Your task to perform on an android device: Add "razer blade" to the cart on target.com, then select checkout. Image 0: 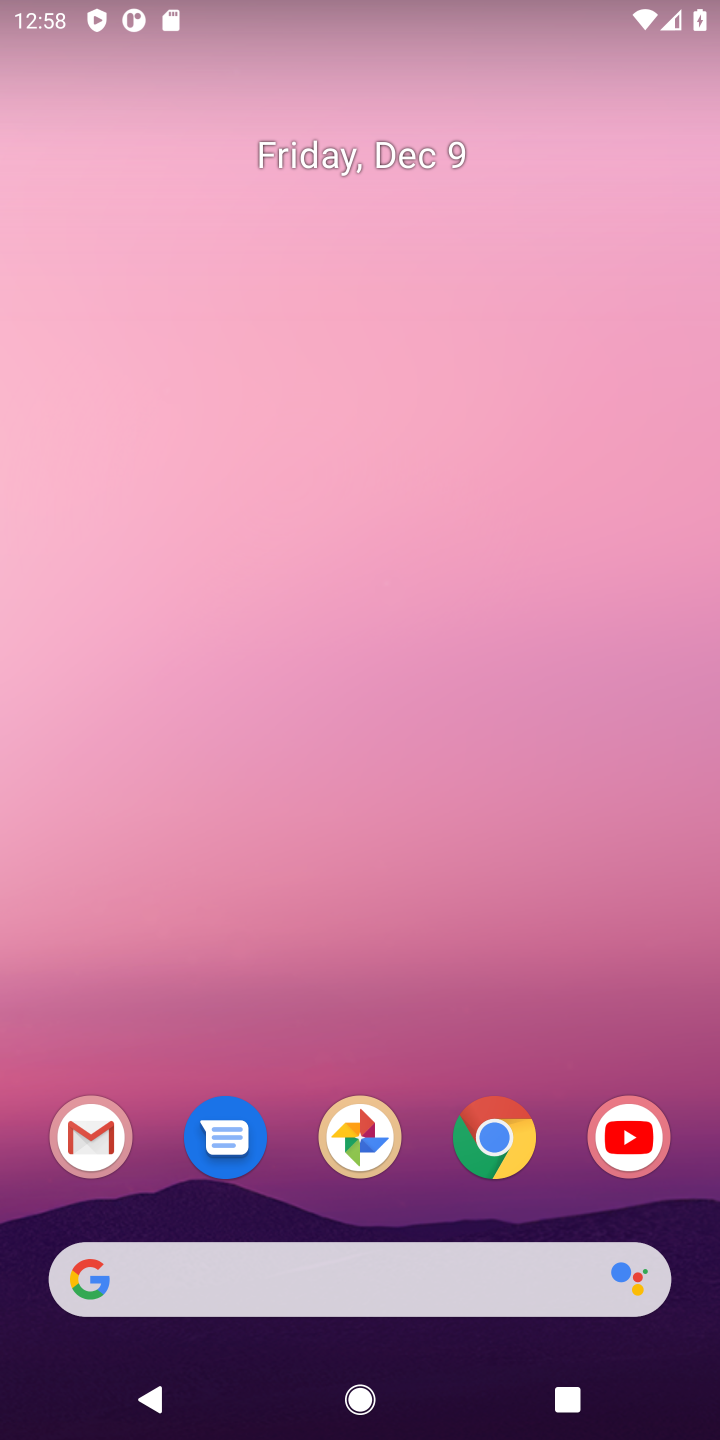
Step 0: click (502, 1143)
Your task to perform on an android device: Add "razer blade" to the cart on target.com, then select checkout. Image 1: 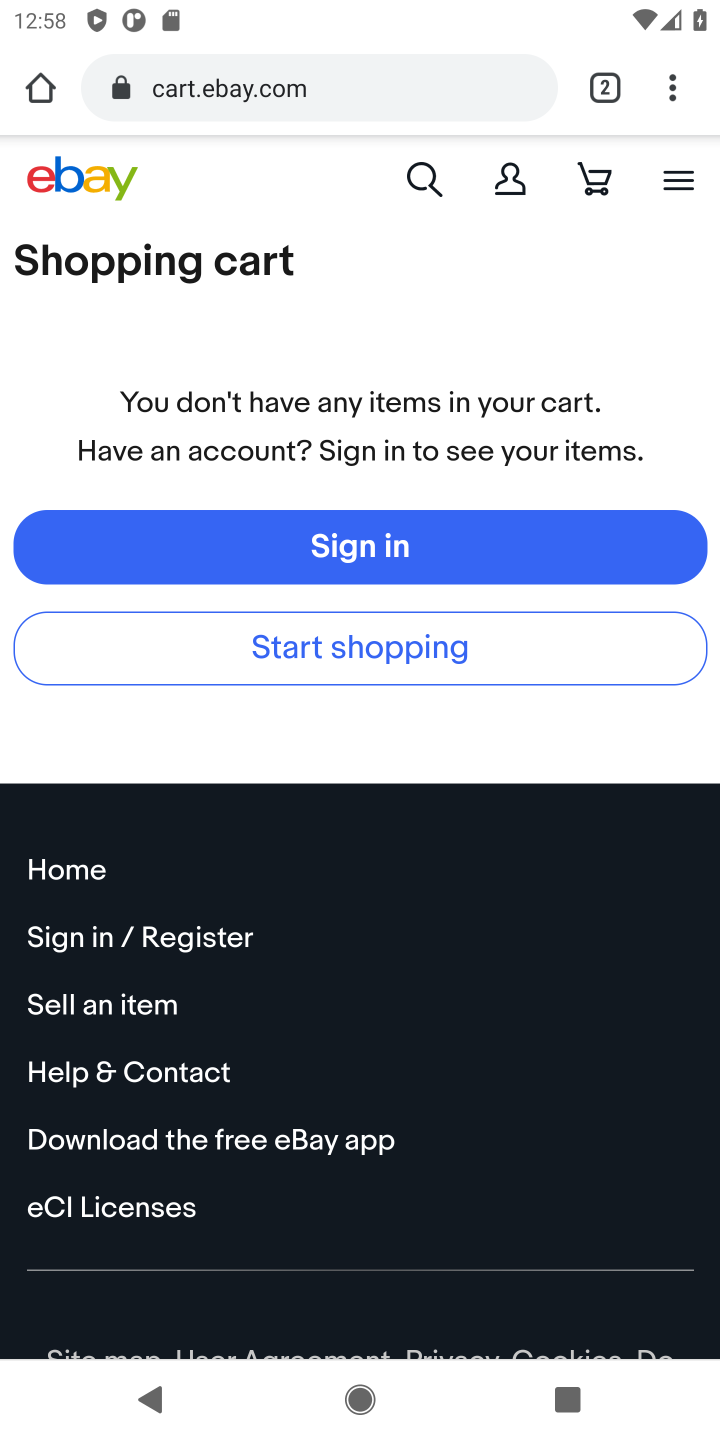
Step 1: click (383, 83)
Your task to perform on an android device: Add "razer blade" to the cart on target.com, then select checkout. Image 2: 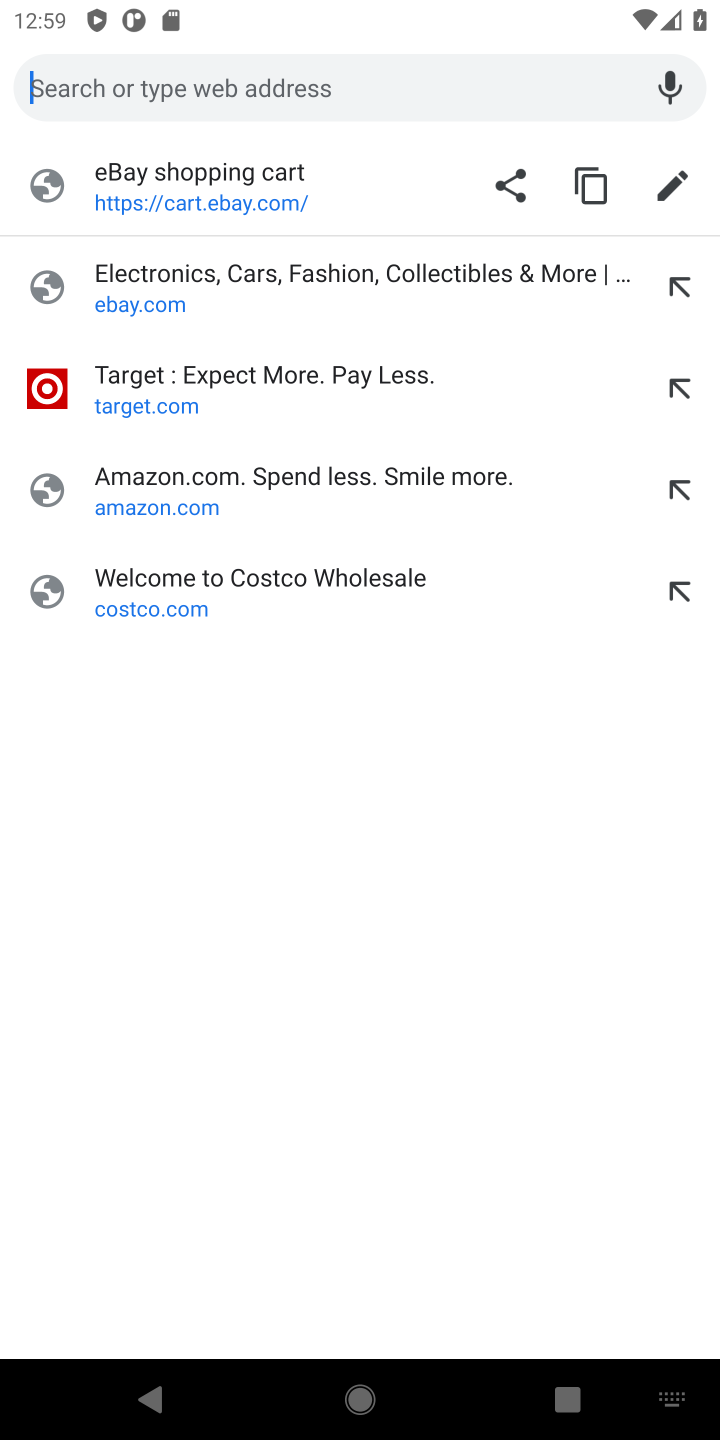
Step 2: click (248, 390)
Your task to perform on an android device: Add "razer blade" to the cart on target.com, then select checkout. Image 3: 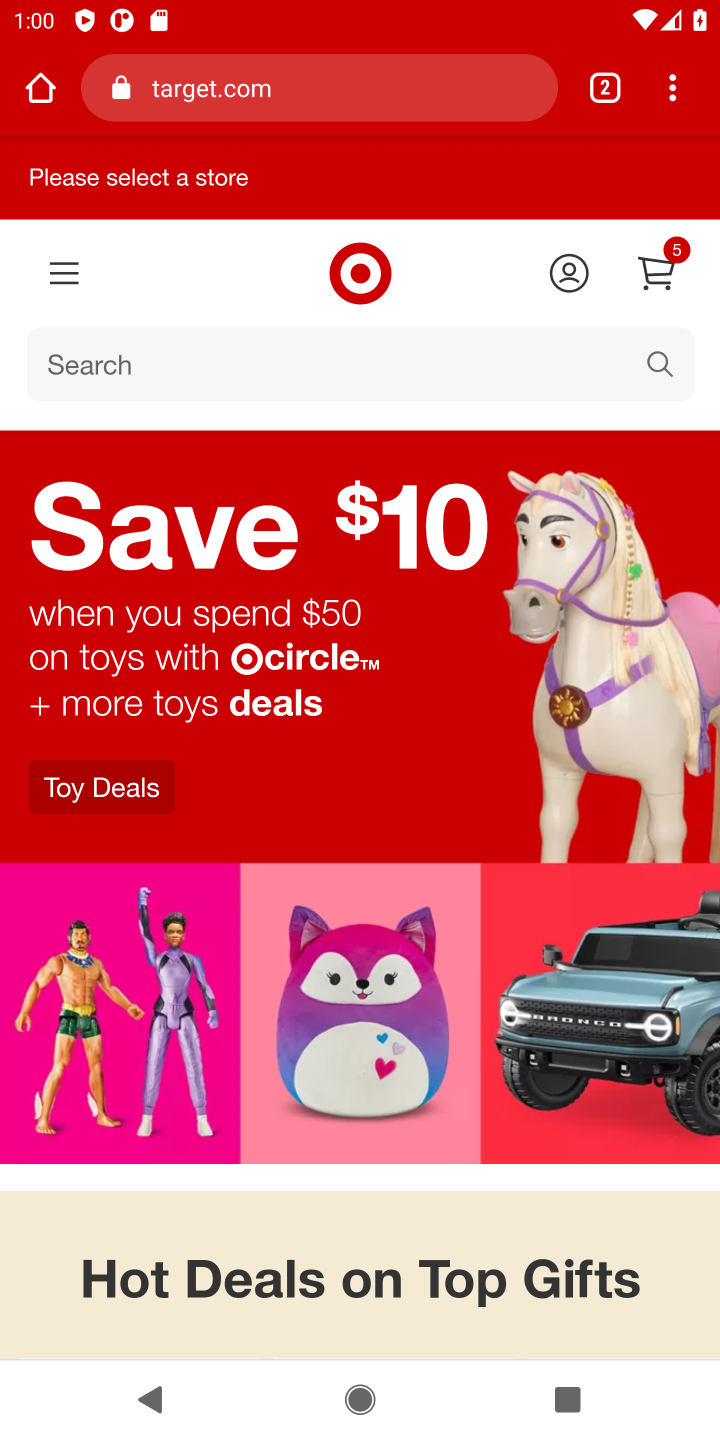
Step 3: click (413, 364)
Your task to perform on an android device: Add "razer blade" to the cart on target.com, then select checkout. Image 4: 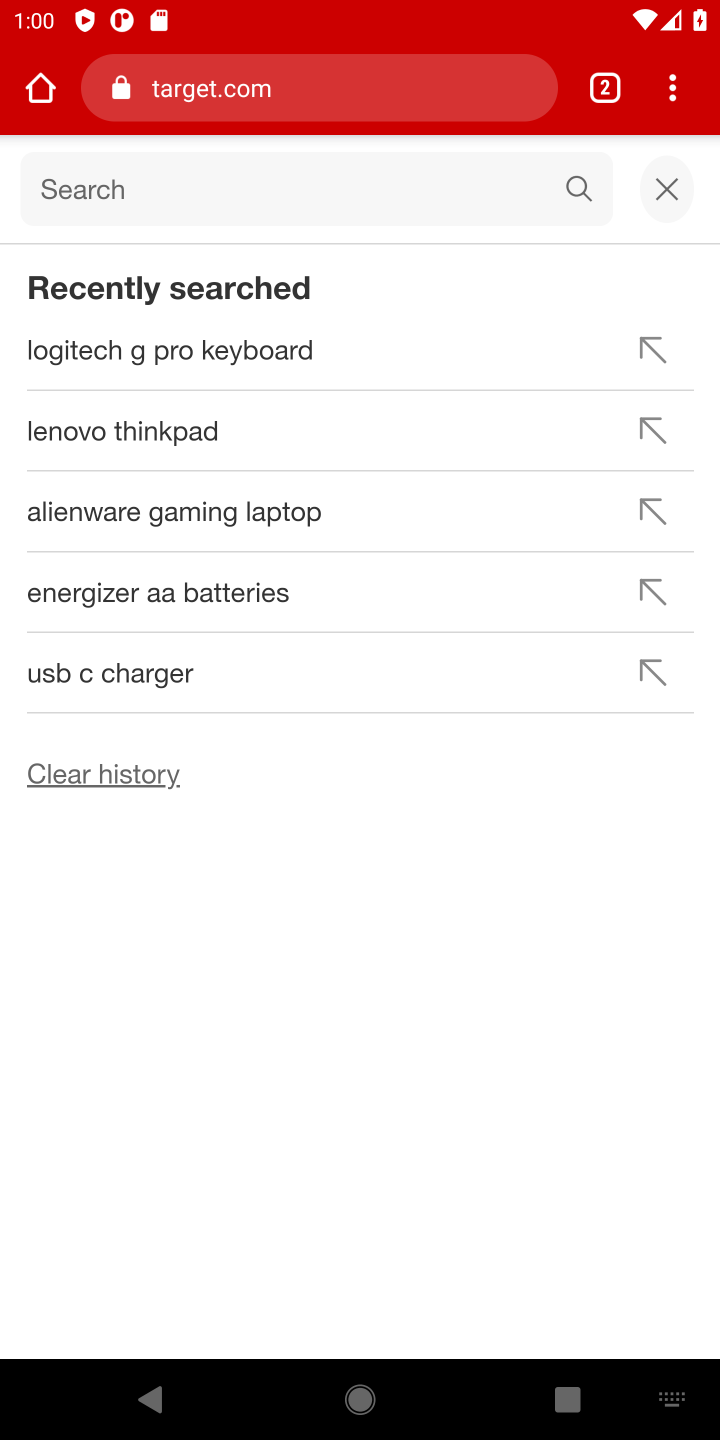
Step 4: type "RAZER BLADE"
Your task to perform on an android device: Add "razer blade" to the cart on target.com, then select checkout. Image 5: 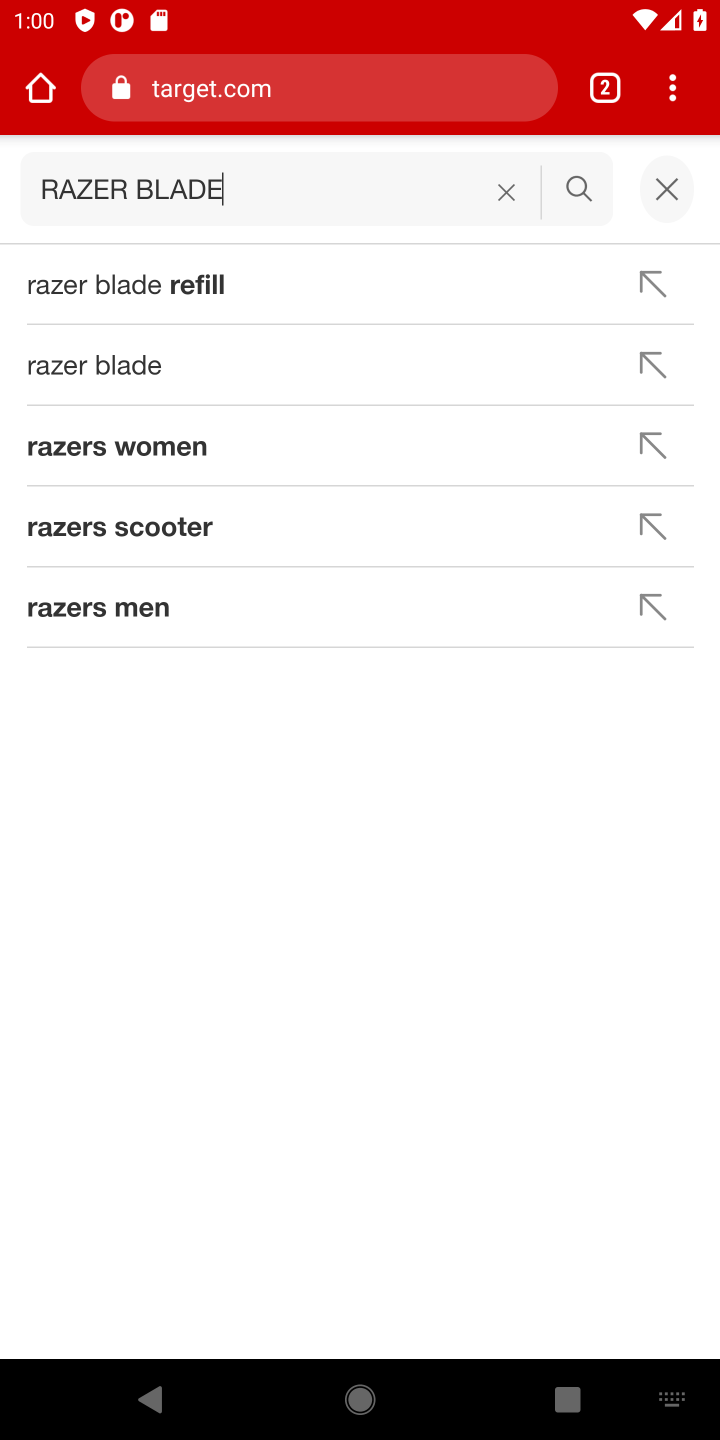
Step 5: click (244, 291)
Your task to perform on an android device: Add "razer blade" to the cart on target.com, then select checkout. Image 6: 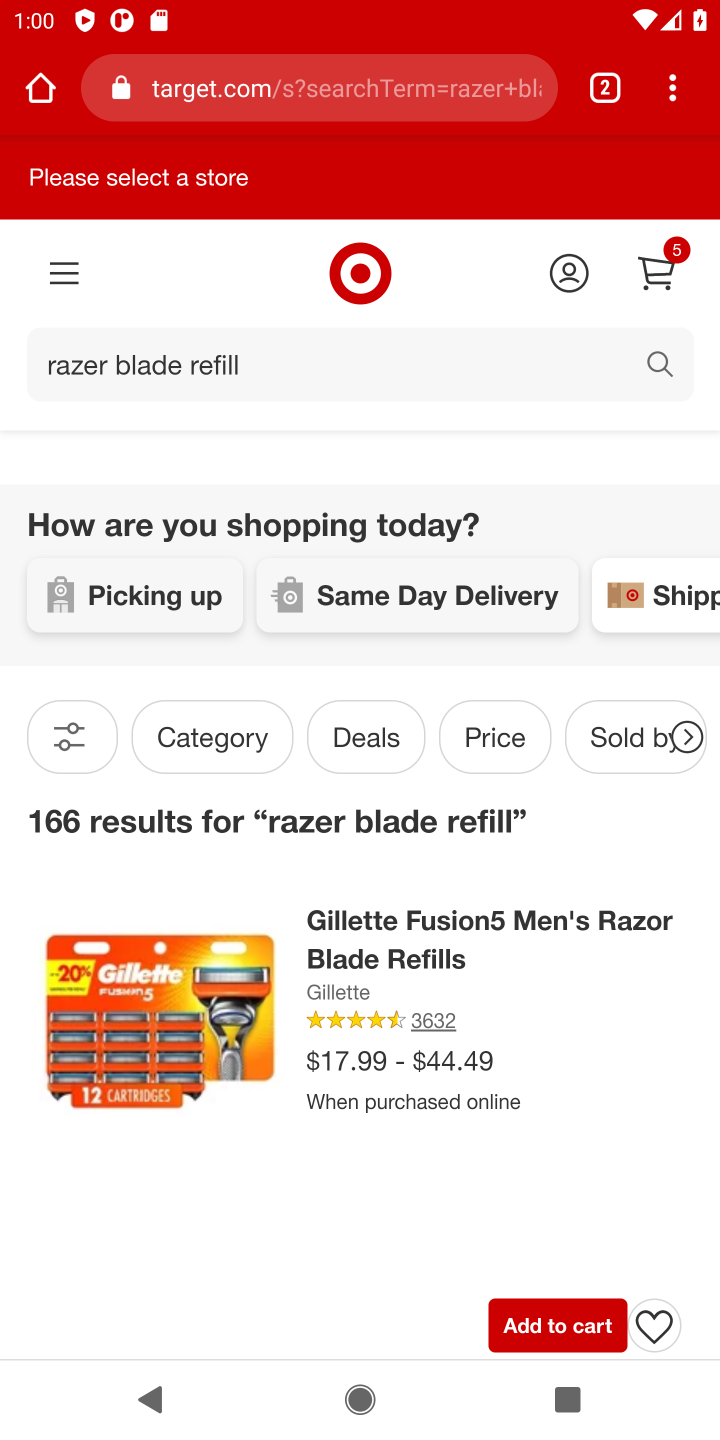
Step 6: click (559, 1323)
Your task to perform on an android device: Add "razer blade" to the cart on target.com, then select checkout. Image 7: 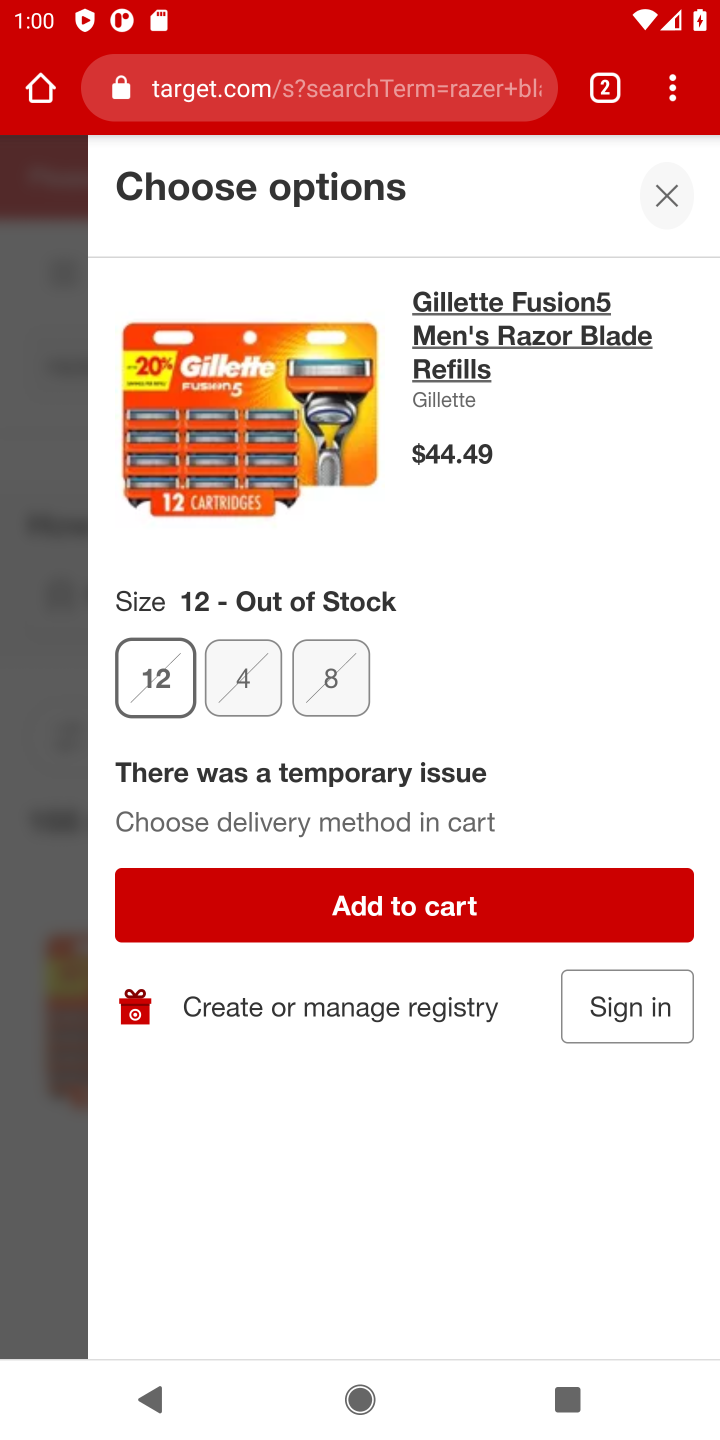
Step 7: click (469, 919)
Your task to perform on an android device: Add "razer blade" to the cart on target.com, then select checkout. Image 8: 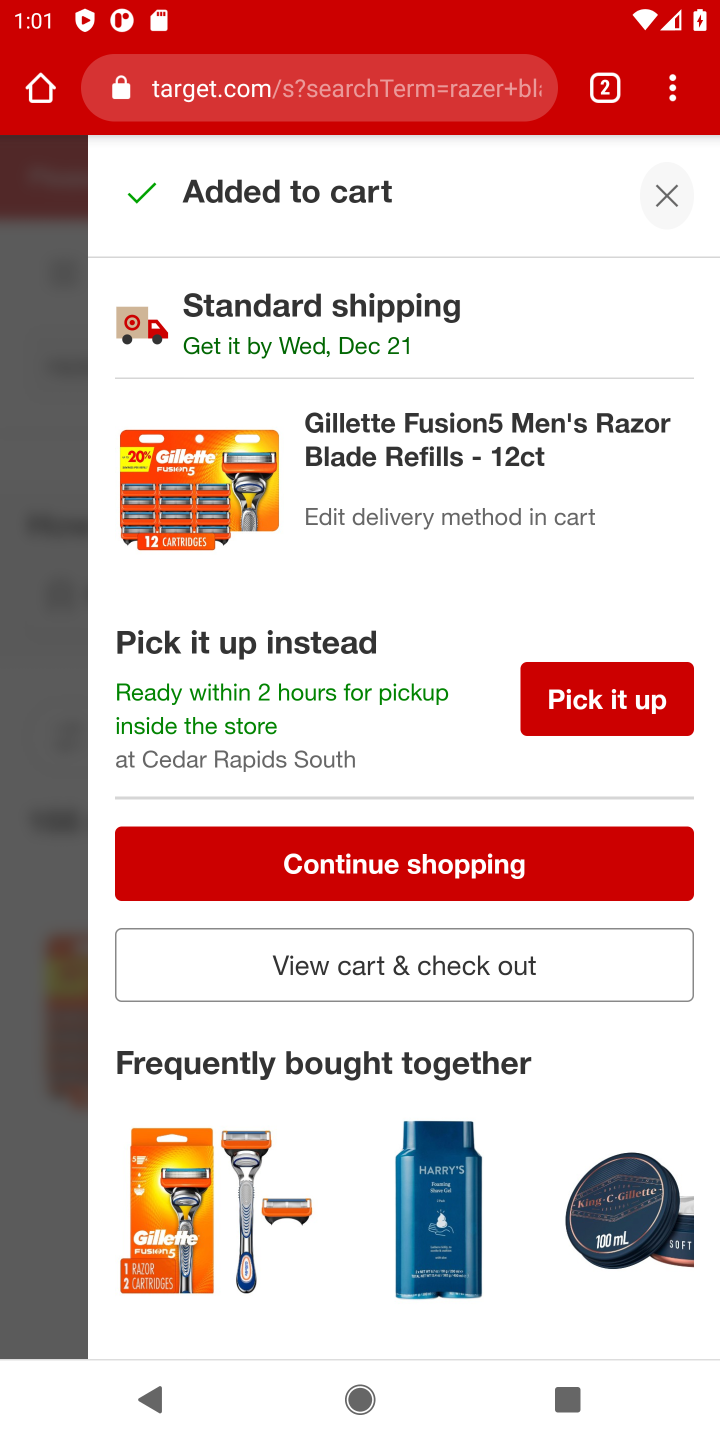
Step 8: click (385, 968)
Your task to perform on an android device: Add "razer blade" to the cart on target.com, then select checkout. Image 9: 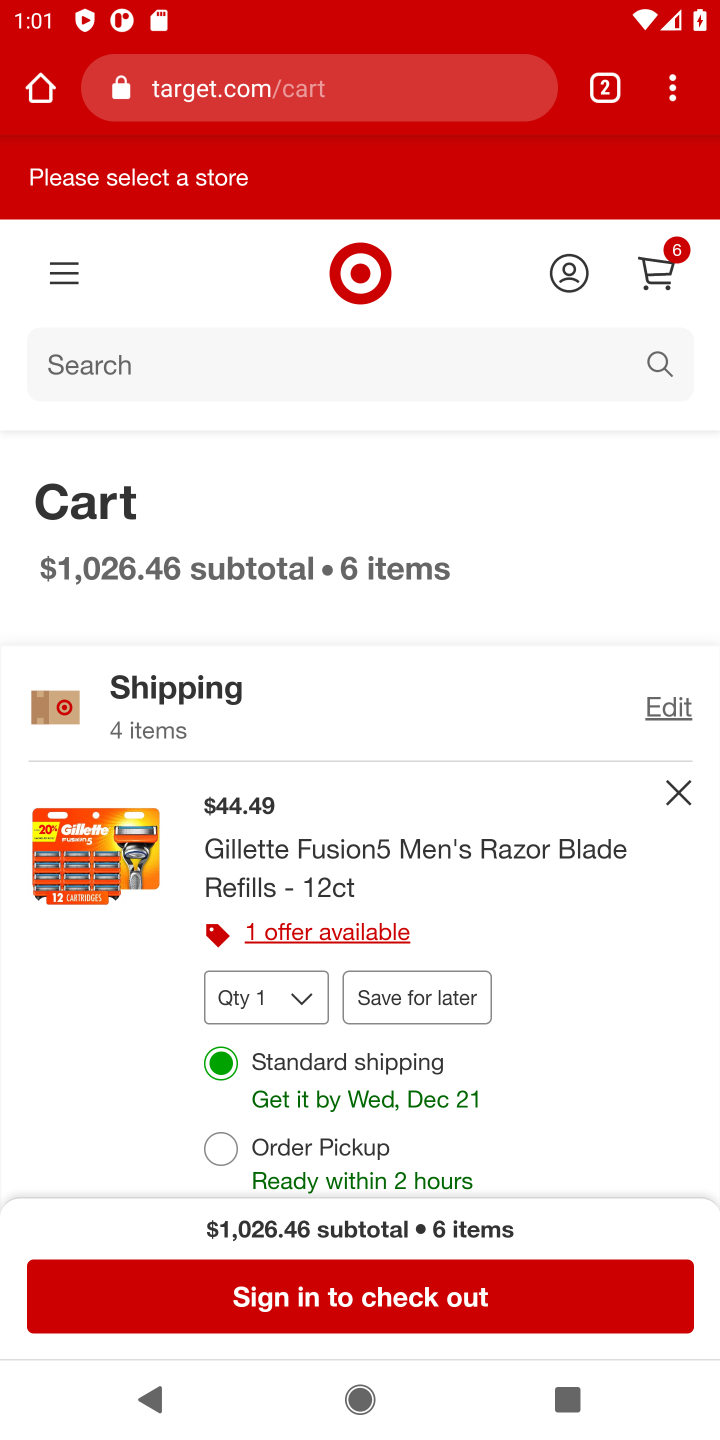
Step 9: click (349, 1303)
Your task to perform on an android device: Add "razer blade" to the cart on target.com, then select checkout. Image 10: 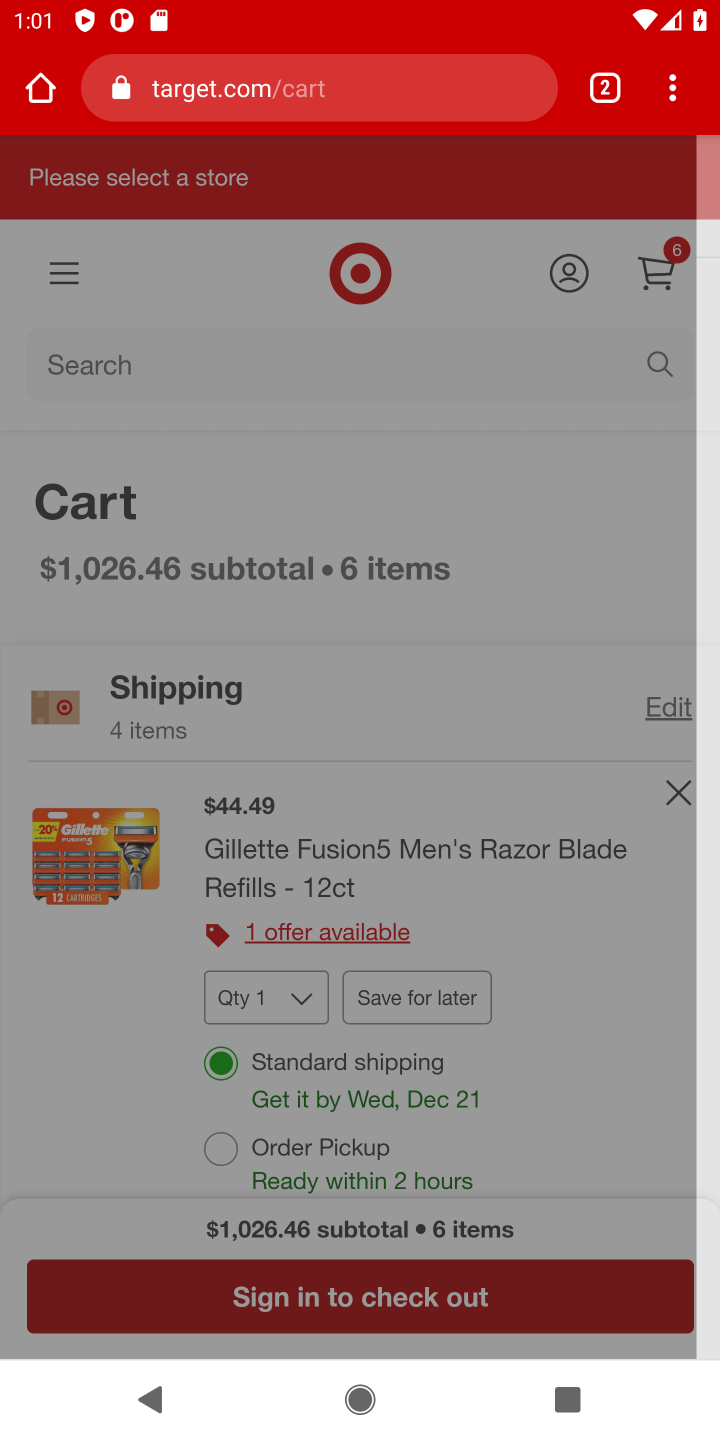
Step 10: task complete